Your task to perform on an android device: turn on showing notifications on the lock screen Image 0: 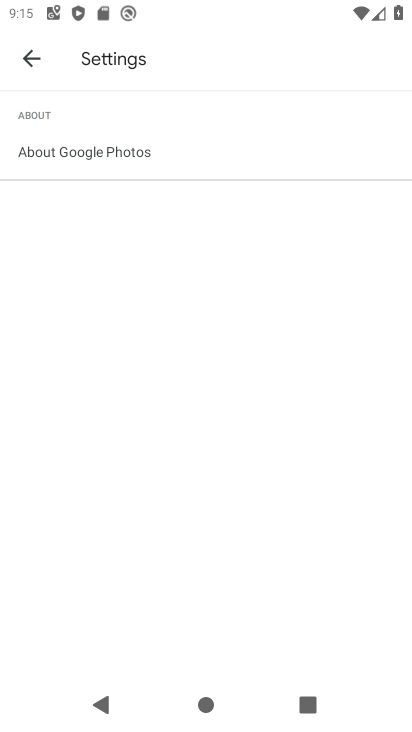
Step 0: press home button
Your task to perform on an android device: turn on showing notifications on the lock screen Image 1: 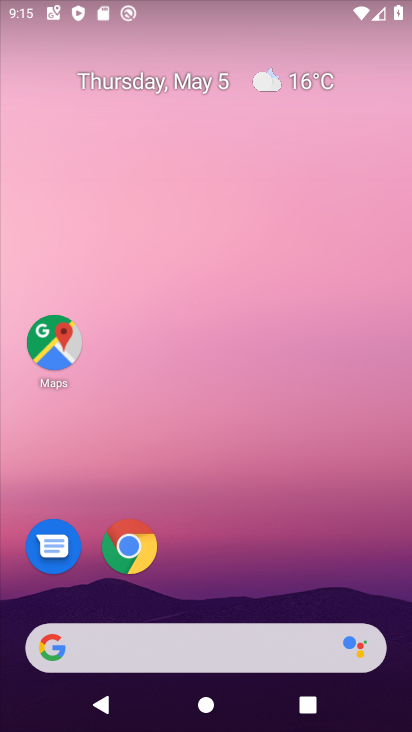
Step 1: drag from (225, 650) to (257, 195)
Your task to perform on an android device: turn on showing notifications on the lock screen Image 2: 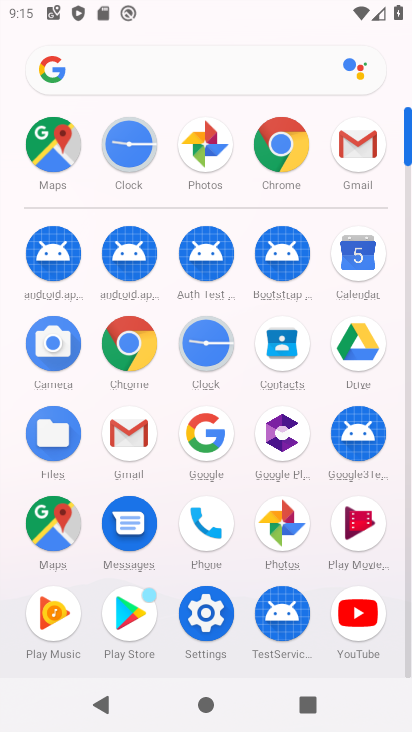
Step 2: click (208, 627)
Your task to perform on an android device: turn on showing notifications on the lock screen Image 3: 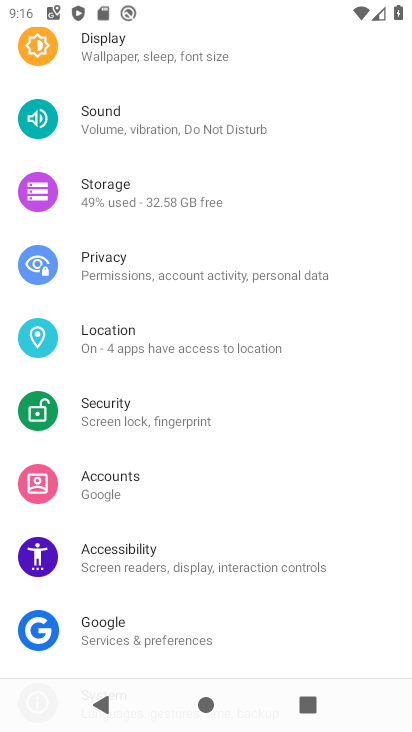
Step 3: drag from (328, 91) to (338, 528)
Your task to perform on an android device: turn on showing notifications on the lock screen Image 4: 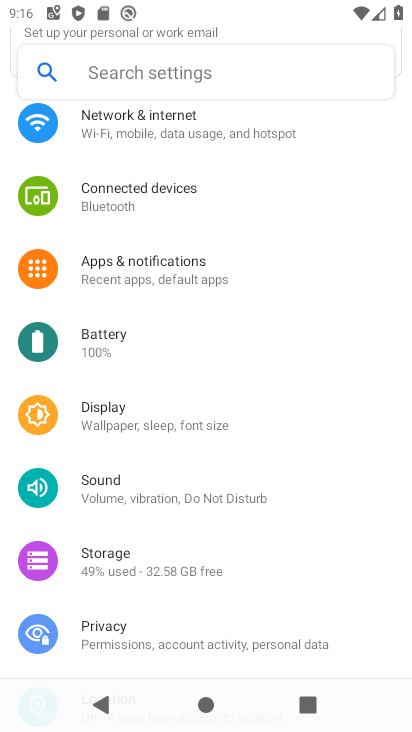
Step 4: click (197, 277)
Your task to perform on an android device: turn on showing notifications on the lock screen Image 5: 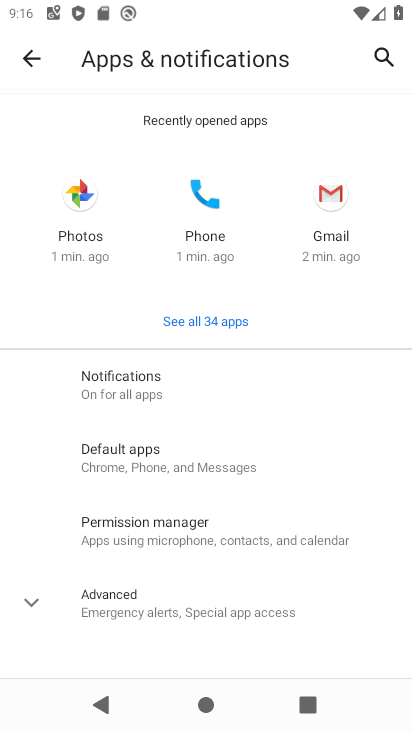
Step 5: click (151, 390)
Your task to perform on an android device: turn on showing notifications on the lock screen Image 6: 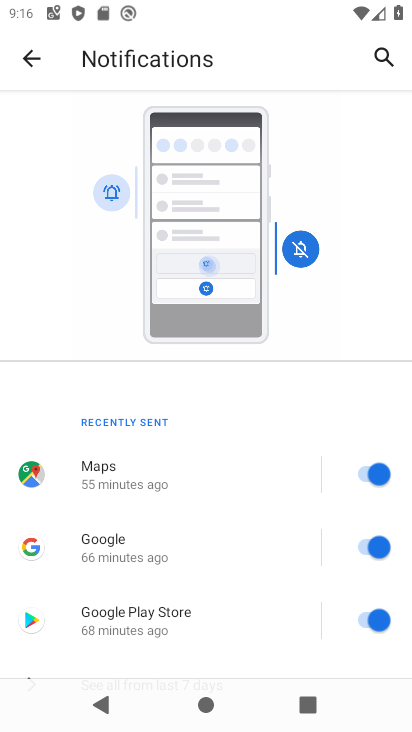
Step 6: drag from (192, 653) to (298, 335)
Your task to perform on an android device: turn on showing notifications on the lock screen Image 7: 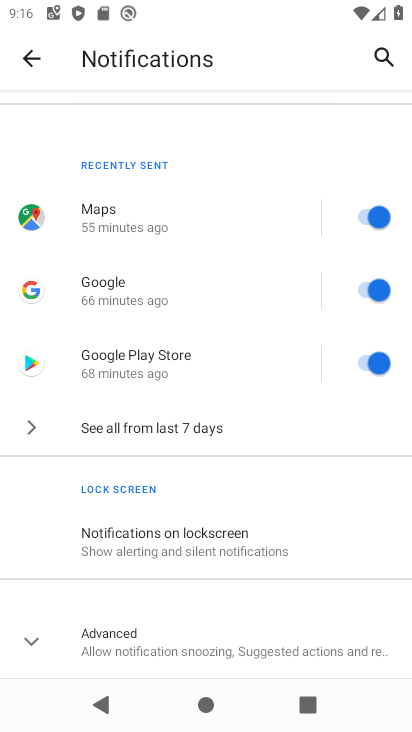
Step 7: click (219, 537)
Your task to perform on an android device: turn on showing notifications on the lock screen Image 8: 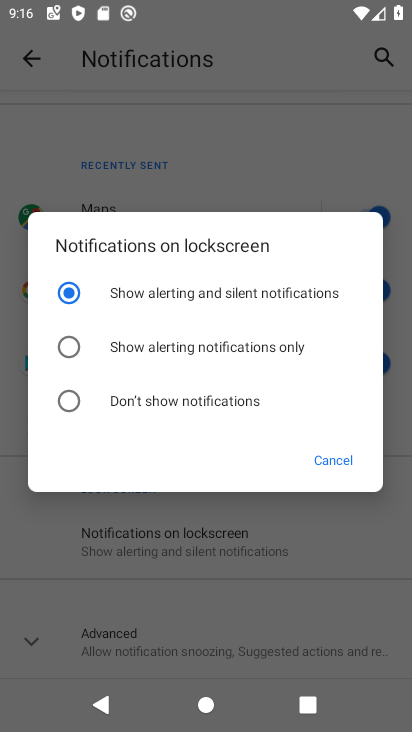
Step 8: task complete